Your task to perform on an android device: Open wifi settings Image 0: 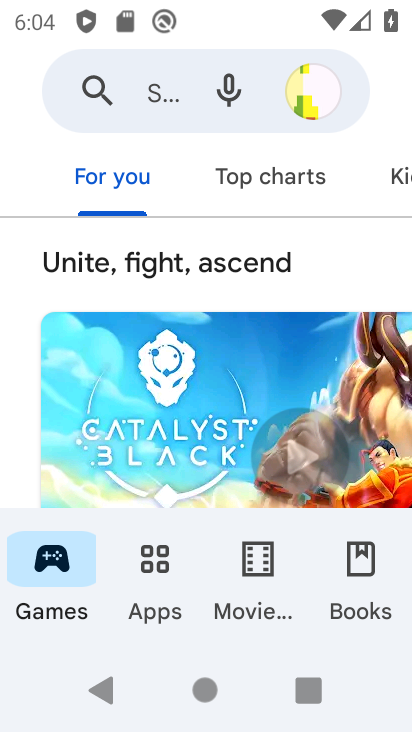
Step 0: press home button
Your task to perform on an android device: Open wifi settings Image 1: 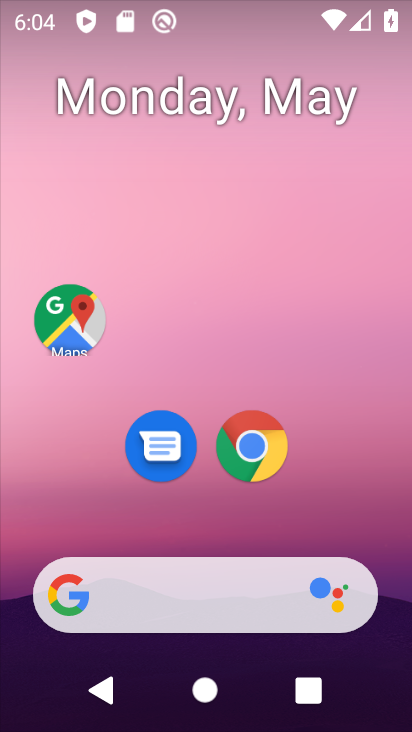
Step 1: drag from (313, 490) to (234, 48)
Your task to perform on an android device: Open wifi settings Image 2: 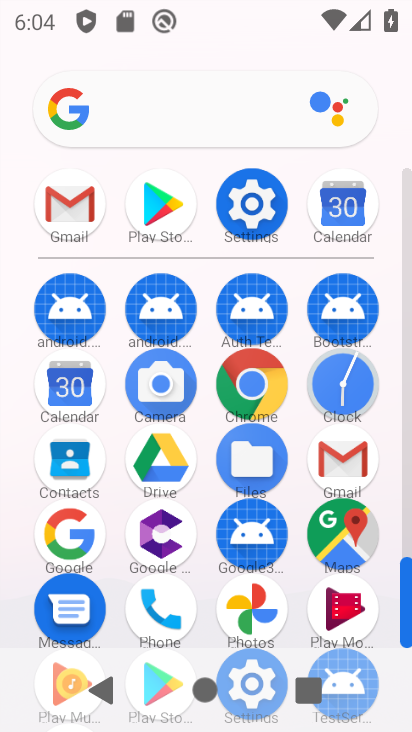
Step 2: click (249, 203)
Your task to perform on an android device: Open wifi settings Image 3: 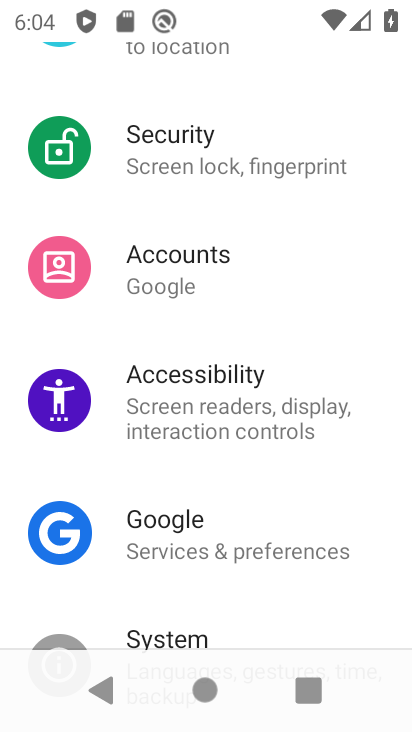
Step 3: drag from (248, 111) to (267, 515)
Your task to perform on an android device: Open wifi settings Image 4: 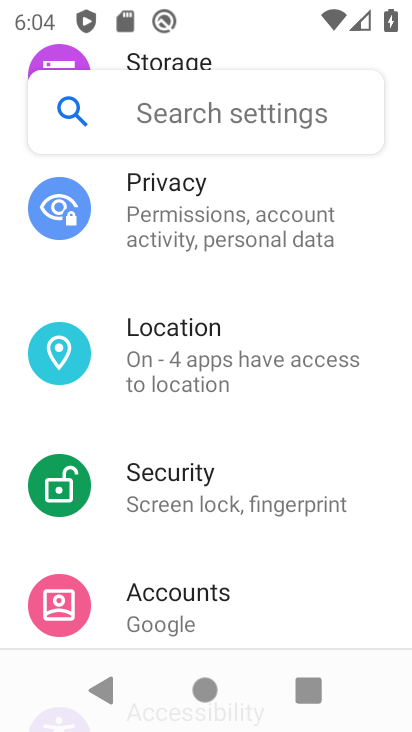
Step 4: drag from (219, 289) to (197, 725)
Your task to perform on an android device: Open wifi settings Image 5: 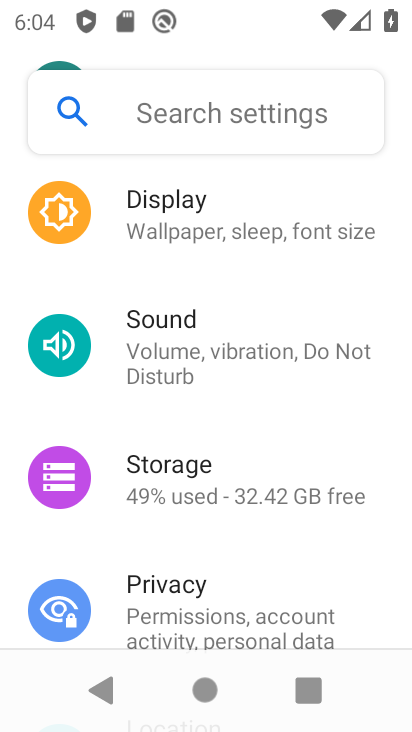
Step 5: drag from (191, 261) to (222, 659)
Your task to perform on an android device: Open wifi settings Image 6: 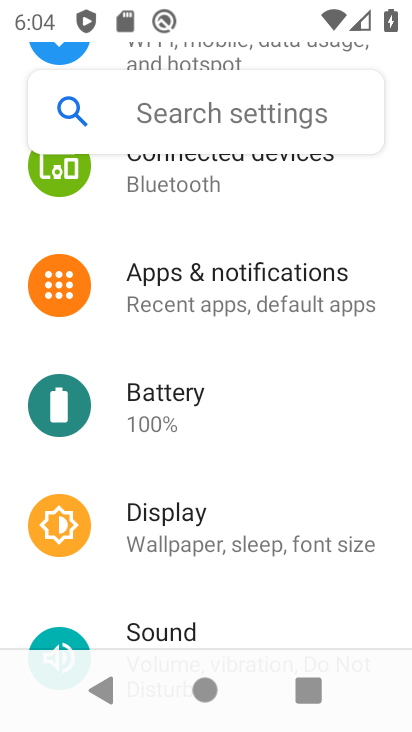
Step 6: drag from (190, 215) to (245, 731)
Your task to perform on an android device: Open wifi settings Image 7: 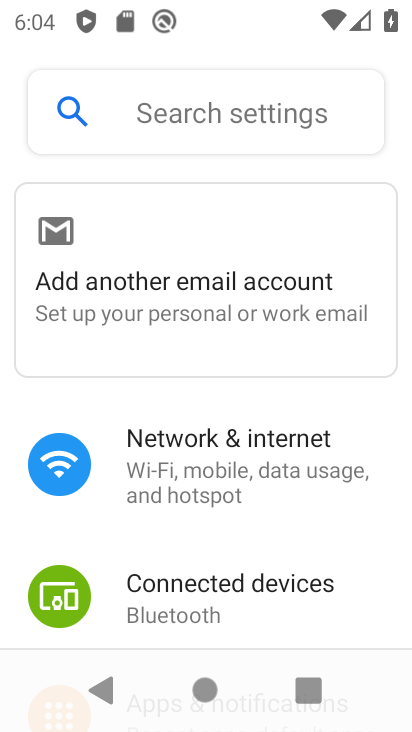
Step 7: click (187, 451)
Your task to perform on an android device: Open wifi settings Image 8: 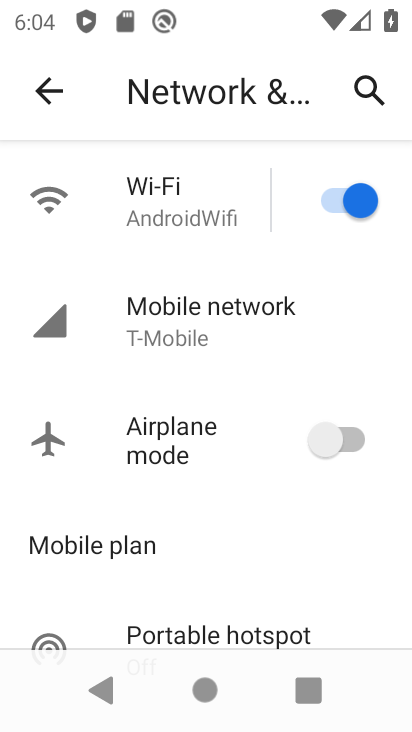
Step 8: click (159, 179)
Your task to perform on an android device: Open wifi settings Image 9: 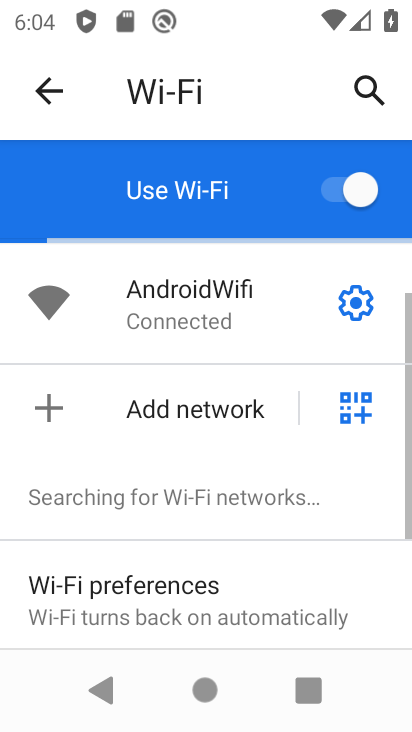
Step 9: task complete